Your task to perform on an android device: Go to wifi settings Image 0: 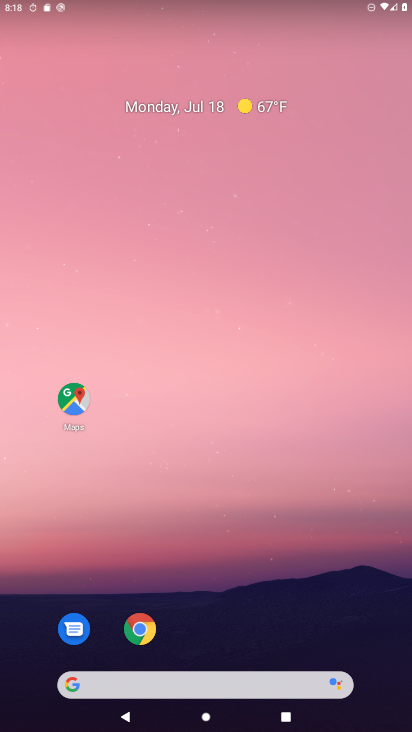
Step 0: drag from (242, 655) to (206, 55)
Your task to perform on an android device: Go to wifi settings Image 1: 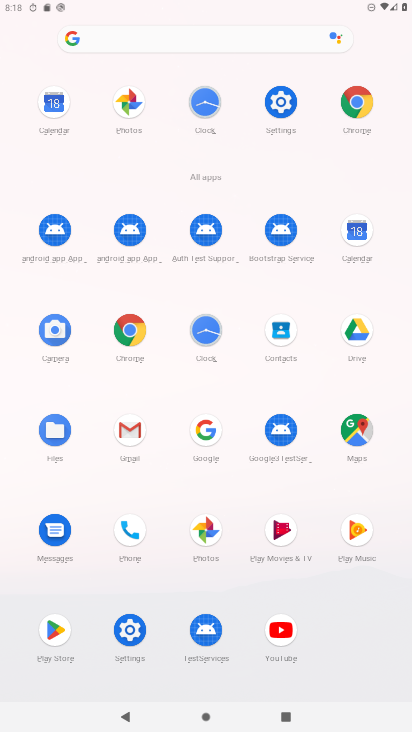
Step 1: click (275, 90)
Your task to perform on an android device: Go to wifi settings Image 2: 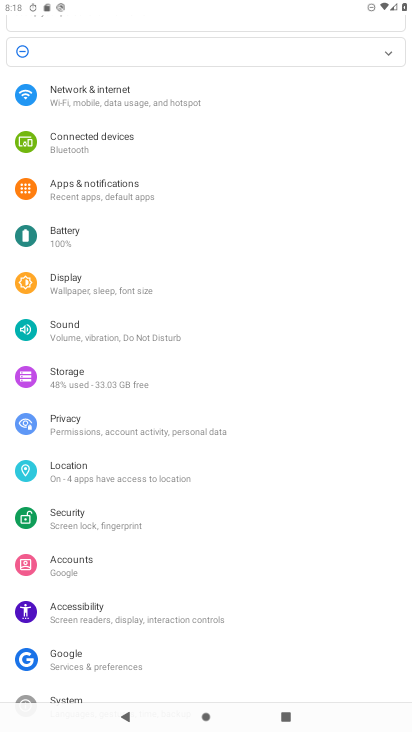
Step 2: drag from (268, 83) to (310, 312)
Your task to perform on an android device: Go to wifi settings Image 3: 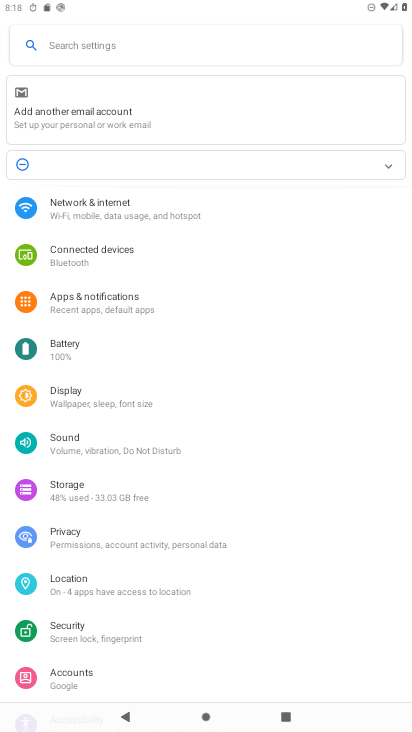
Step 3: click (144, 213)
Your task to perform on an android device: Go to wifi settings Image 4: 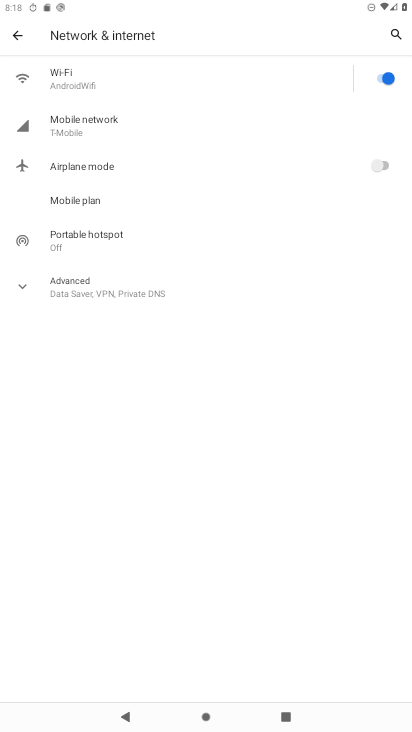
Step 4: click (52, 89)
Your task to perform on an android device: Go to wifi settings Image 5: 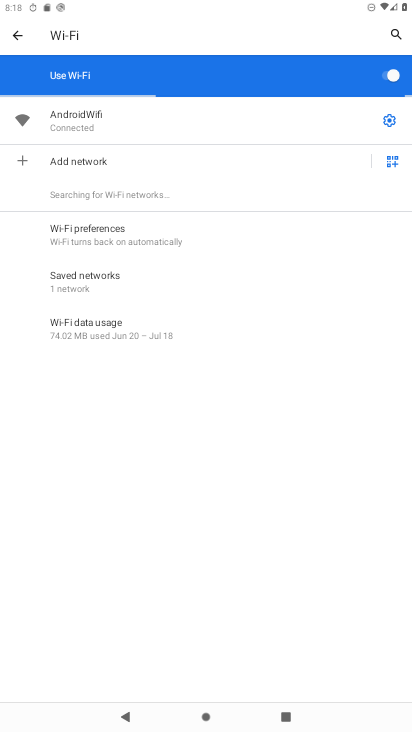
Step 5: task complete